Your task to perform on an android device: open the mobile data screen to see how much data has been used Image 0: 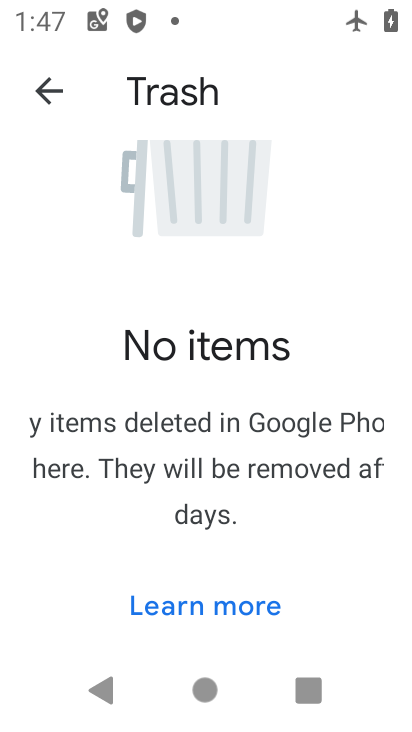
Step 0: press home button
Your task to perform on an android device: open the mobile data screen to see how much data has been used Image 1: 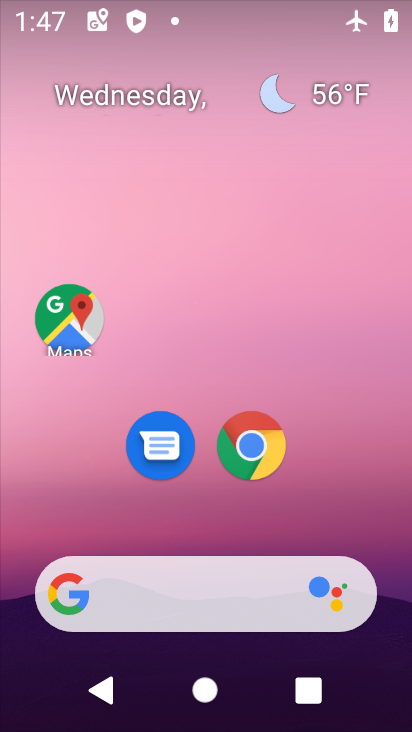
Step 1: drag from (177, 531) to (170, 4)
Your task to perform on an android device: open the mobile data screen to see how much data has been used Image 2: 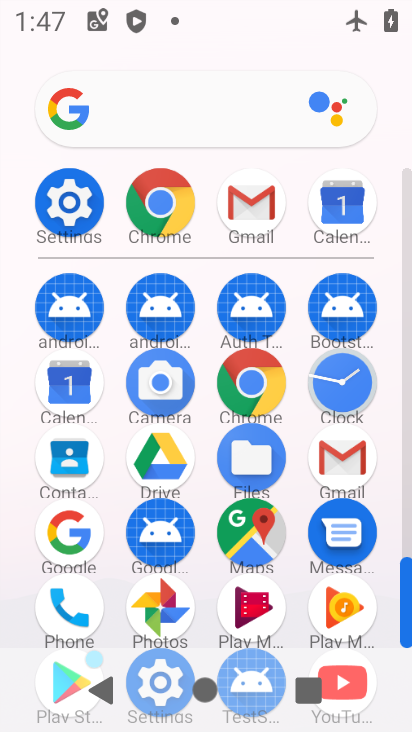
Step 2: click (61, 224)
Your task to perform on an android device: open the mobile data screen to see how much data has been used Image 3: 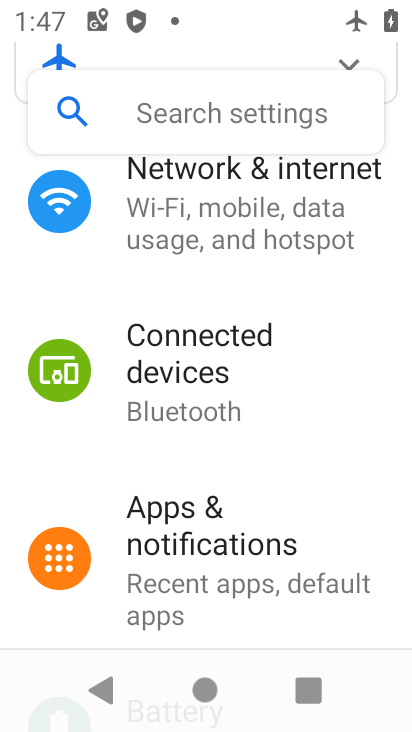
Step 3: click (185, 213)
Your task to perform on an android device: open the mobile data screen to see how much data has been used Image 4: 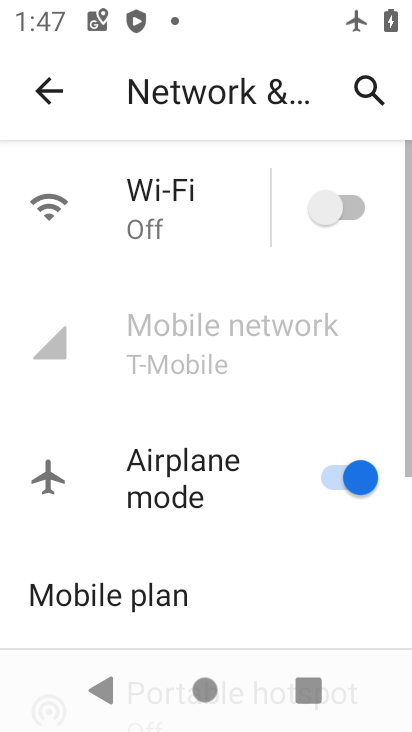
Step 4: click (194, 316)
Your task to perform on an android device: open the mobile data screen to see how much data has been used Image 5: 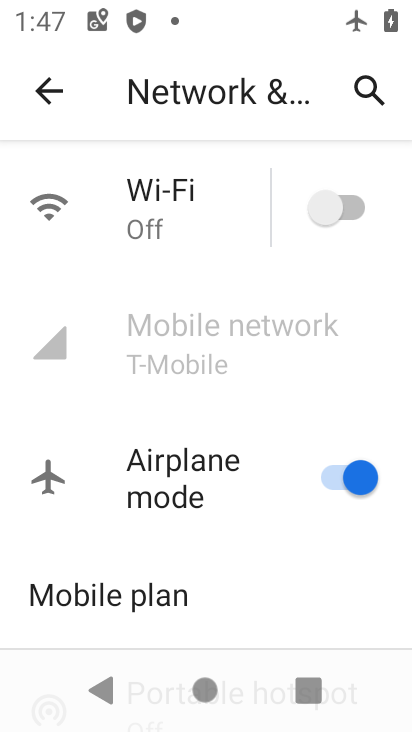
Step 5: task complete